Your task to perform on an android device: turn notification dots on Image 0: 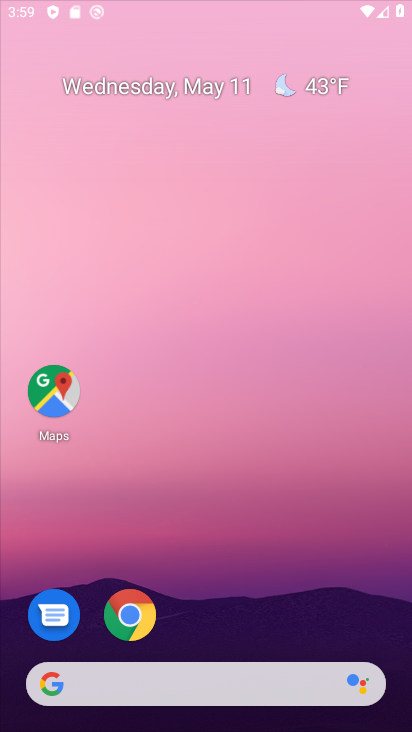
Step 0: click (219, 166)
Your task to perform on an android device: turn notification dots on Image 1: 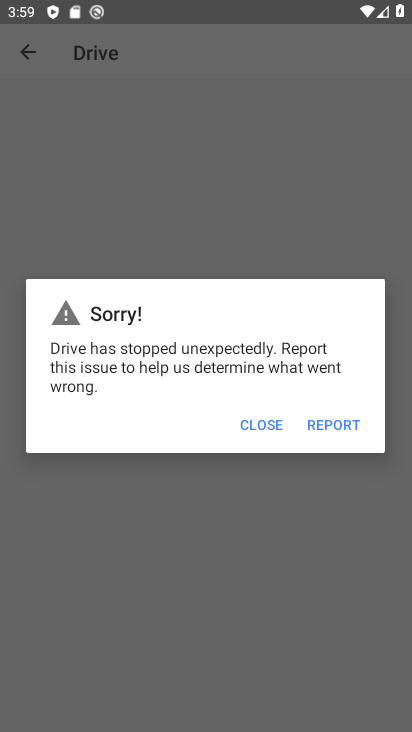
Step 1: press back button
Your task to perform on an android device: turn notification dots on Image 2: 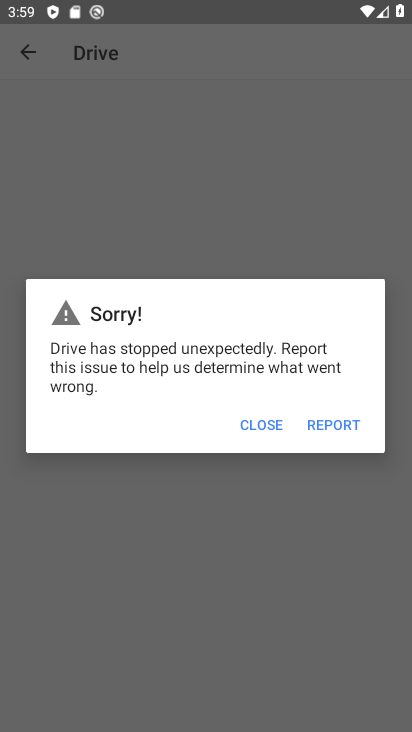
Step 2: press back button
Your task to perform on an android device: turn notification dots on Image 3: 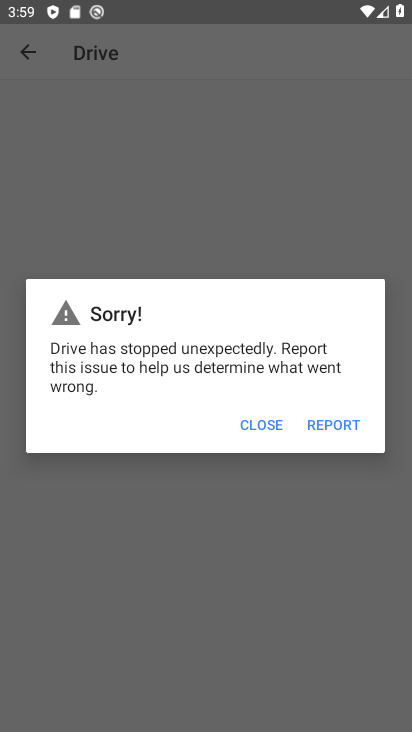
Step 3: press home button
Your task to perform on an android device: turn notification dots on Image 4: 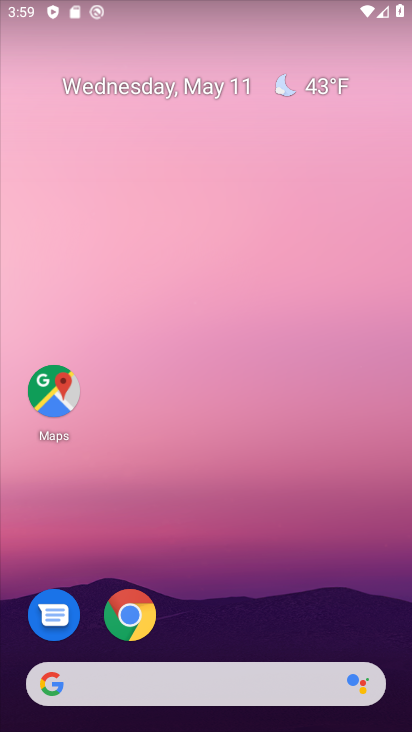
Step 4: drag from (264, 610) to (249, 46)
Your task to perform on an android device: turn notification dots on Image 5: 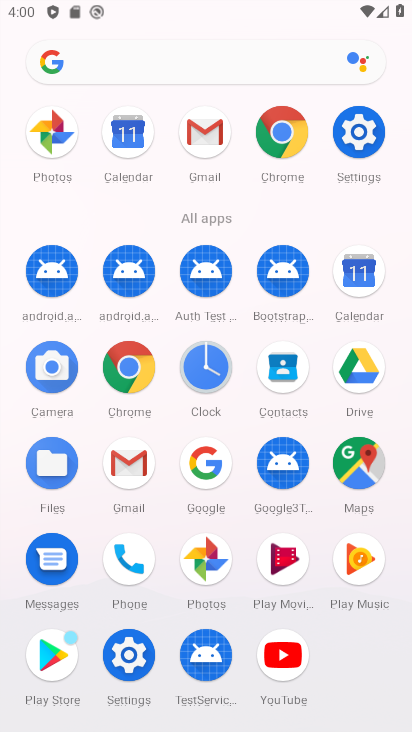
Step 5: click (128, 649)
Your task to perform on an android device: turn notification dots on Image 6: 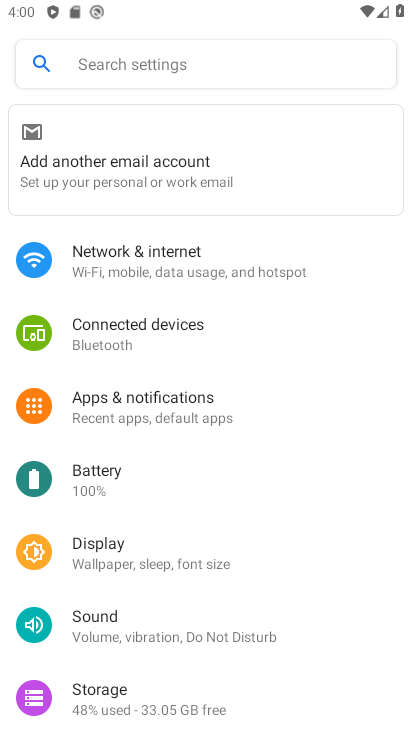
Step 6: drag from (289, 547) to (297, 209)
Your task to perform on an android device: turn notification dots on Image 7: 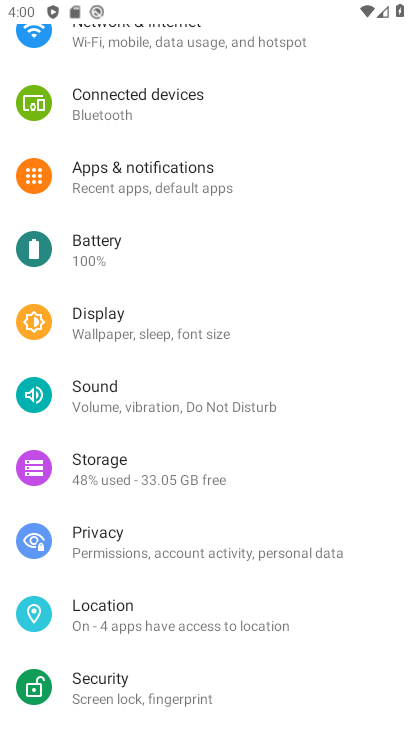
Step 7: click (173, 184)
Your task to perform on an android device: turn notification dots on Image 8: 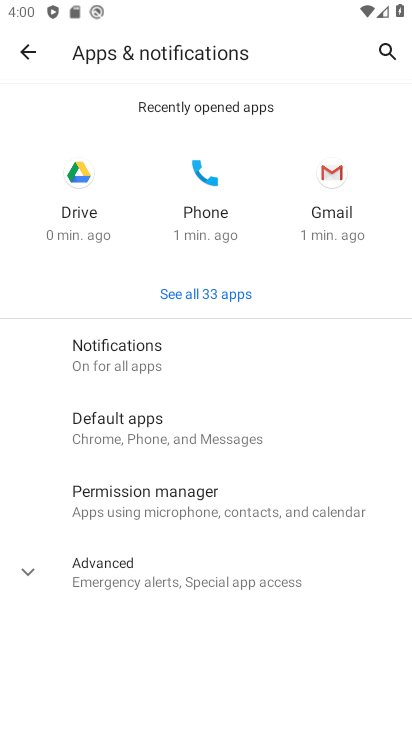
Step 8: click (33, 574)
Your task to perform on an android device: turn notification dots on Image 9: 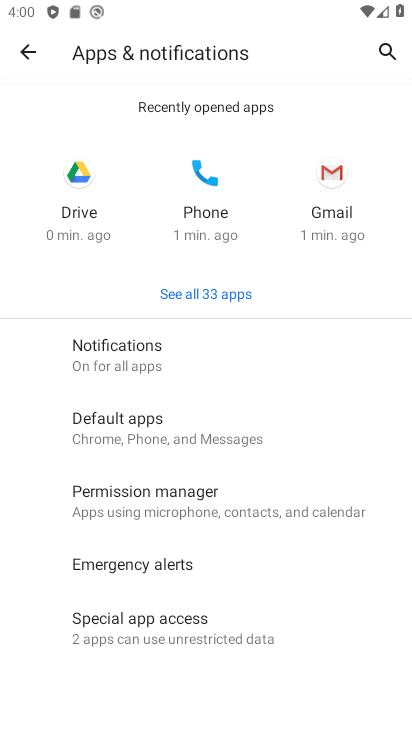
Step 9: click (168, 357)
Your task to perform on an android device: turn notification dots on Image 10: 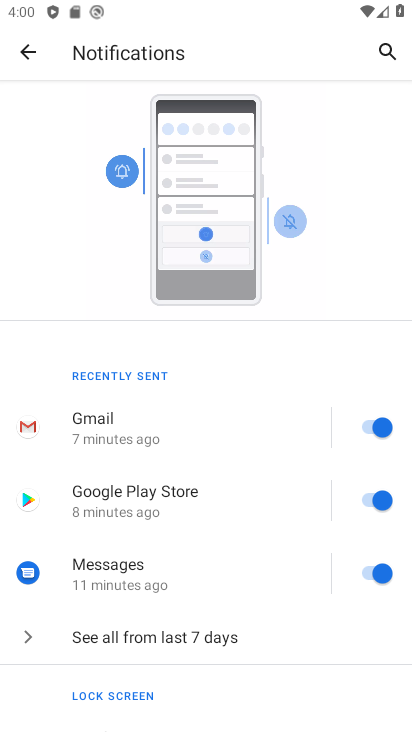
Step 10: drag from (255, 549) to (276, 151)
Your task to perform on an android device: turn notification dots on Image 11: 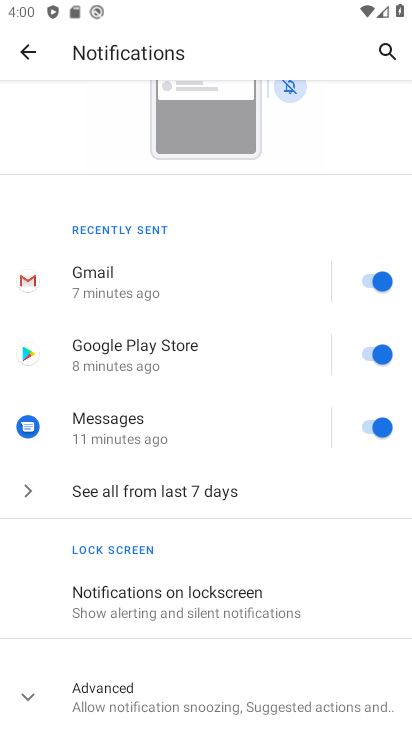
Step 11: click (115, 678)
Your task to perform on an android device: turn notification dots on Image 12: 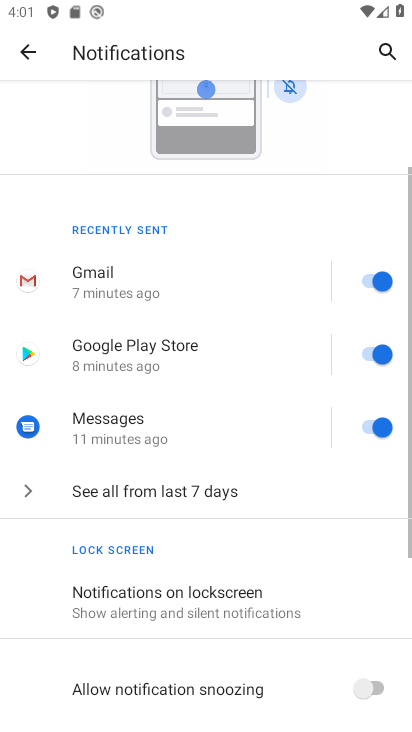
Step 12: task complete